Your task to perform on an android device: toggle show notifications on the lock screen Image 0: 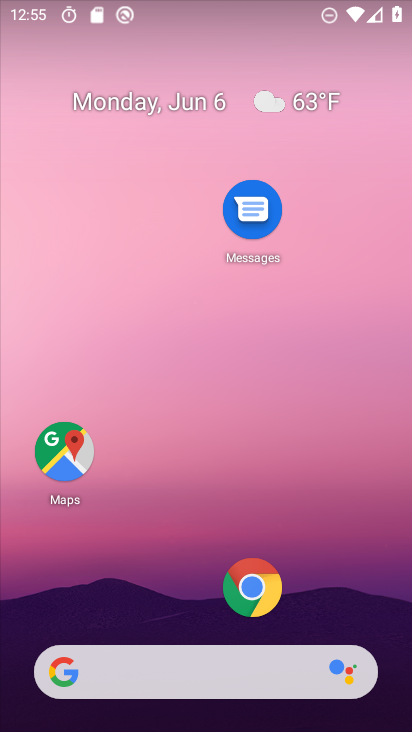
Step 0: drag from (174, 629) to (198, 198)
Your task to perform on an android device: toggle show notifications on the lock screen Image 1: 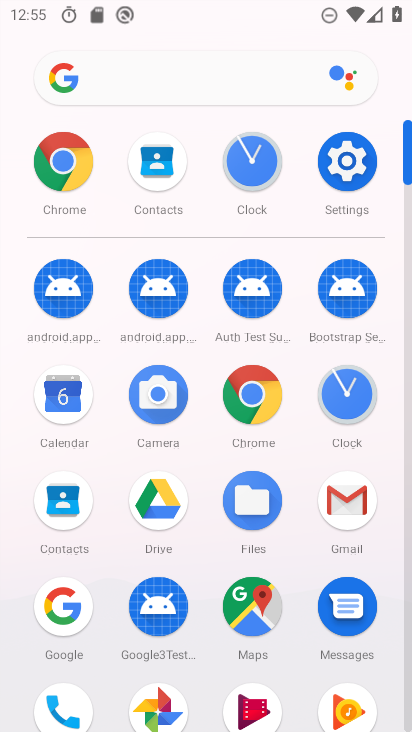
Step 1: click (329, 157)
Your task to perform on an android device: toggle show notifications on the lock screen Image 2: 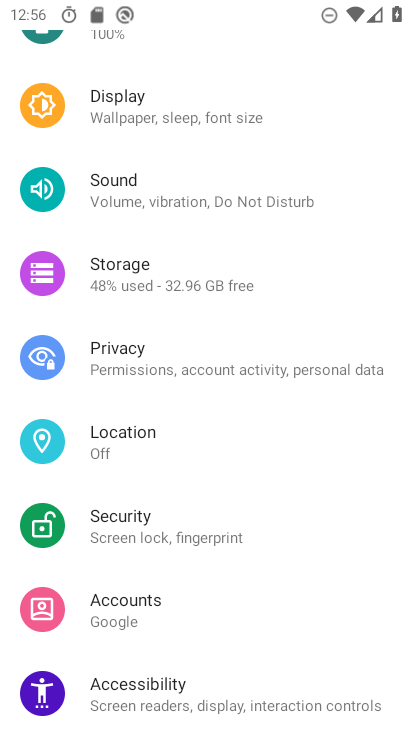
Step 2: drag from (126, 214) to (141, 684)
Your task to perform on an android device: toggle show notifications on the lock screen Image 3: 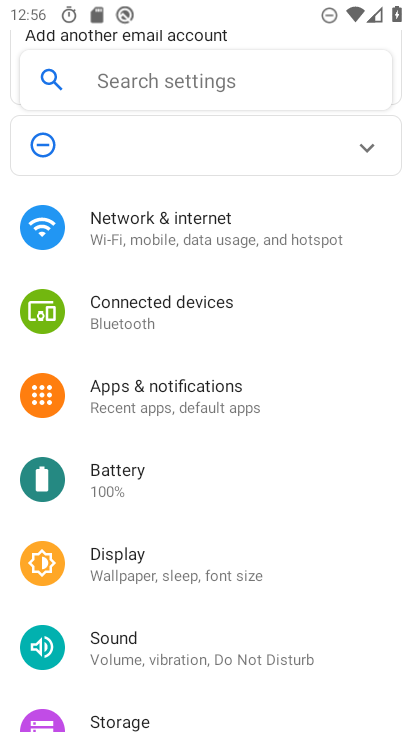
Step 3: click (140, 405)
Your task to perform on an android device: toggle show notifications on the lock screen Image 4: 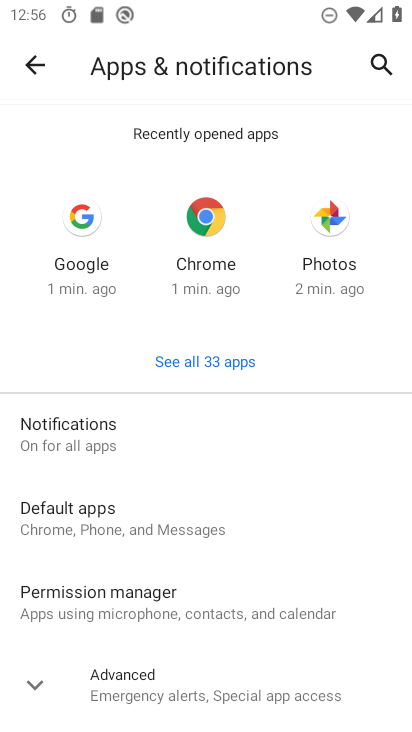
Step 4: click (141, 428)
Your task to perform on an android device: toggle show notifications on the lock screen Image 5: 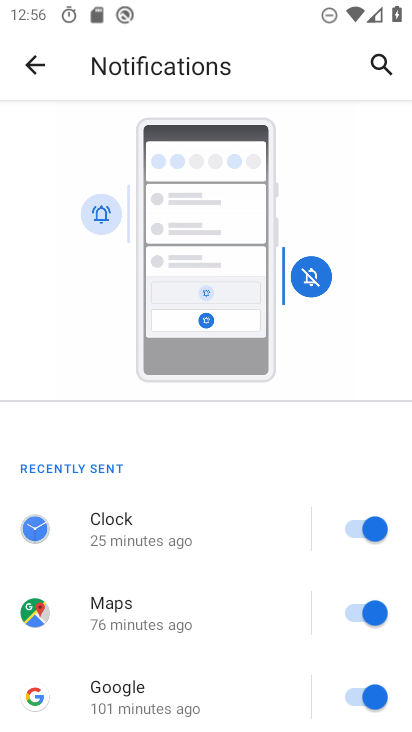
Step 5: drag from (135, 656) to (170, 155)
Your task to perform on an android device: toggle show notifications on the lock screen Image 6: 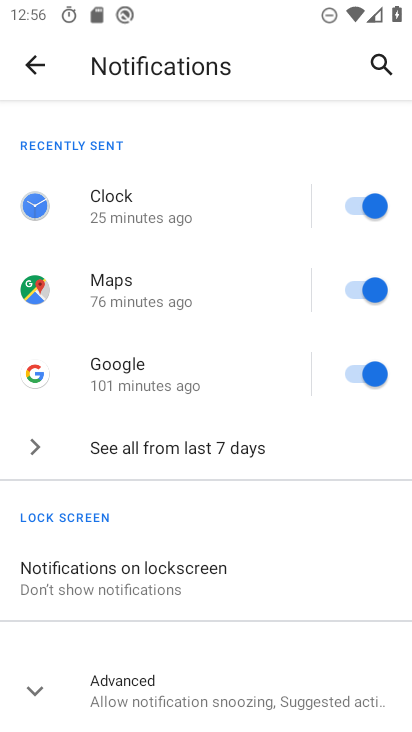
Step 6: click (121, 592)
Your task to perform on an android device: toggle show notifications on the lock screen Image 7: 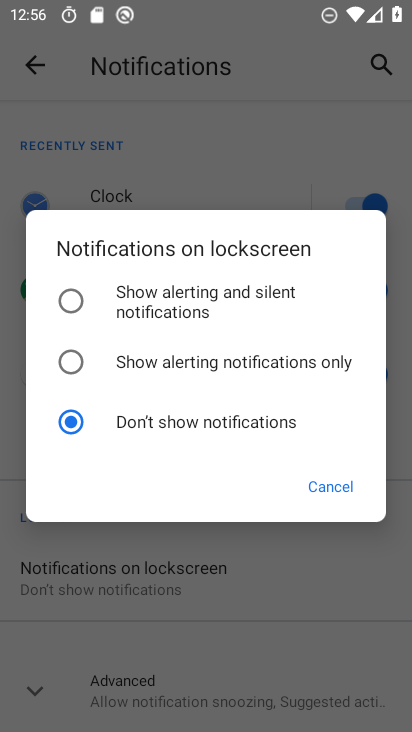
Step 7: click (131, 300)
Your task to perform on an android device: toggle show notifications on the lock screen Image 8: 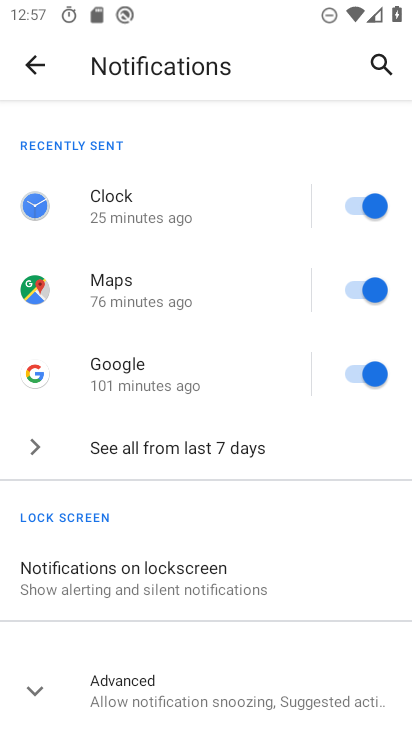
Step 8: click (145, 659)
Your task to perform on an android device: toggle show notifications on the lock screen Image 9: 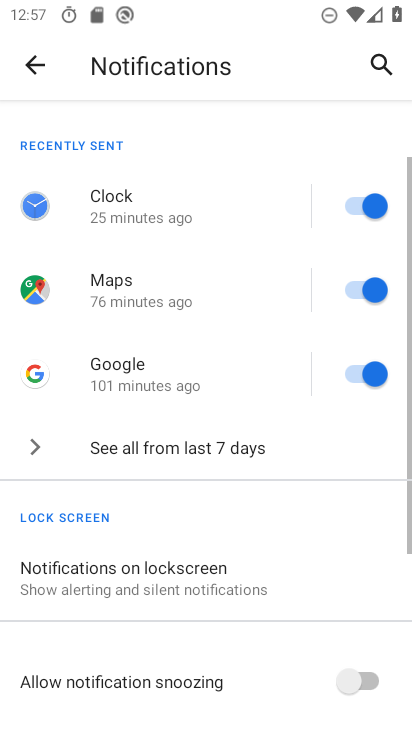
Step 9: click (160, 567)
Your task to perform on an android device: toggle show notifications on the lock screen Image 10: 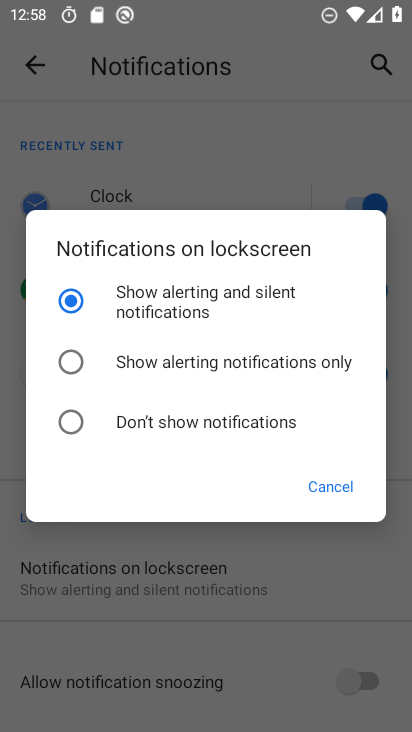
Step 10: task complete